Your task to perform on an android device: Go to privacy settings Image 0: 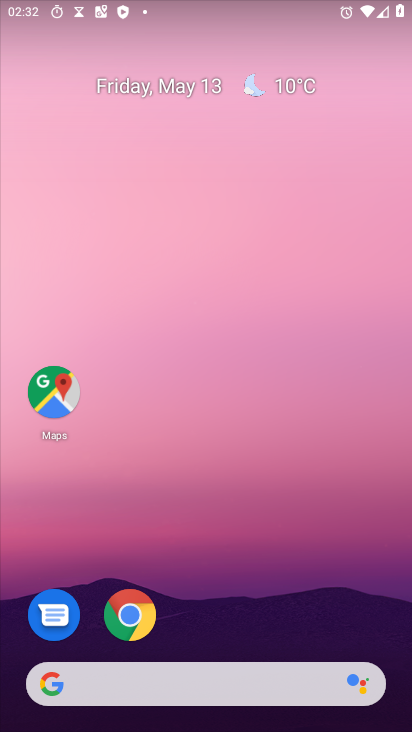
Step 0: drag from (194, 643) to (196, 25)
Your task to perform on an android device: Go to privacy settings Image 1: 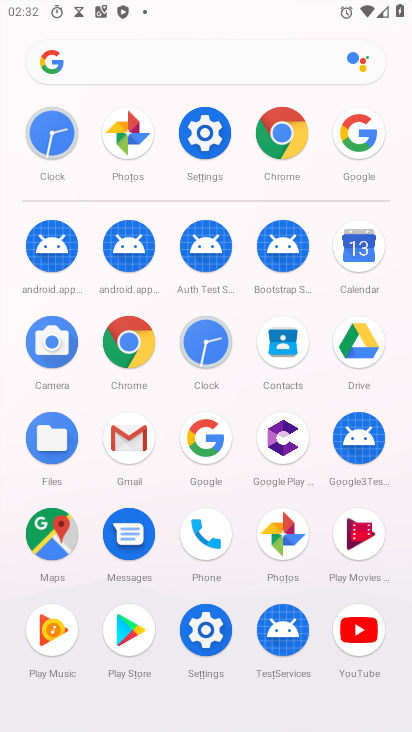
Step 1: click (208, 132)
Your task to perform on an android device: Go to privacy settings Image 2: 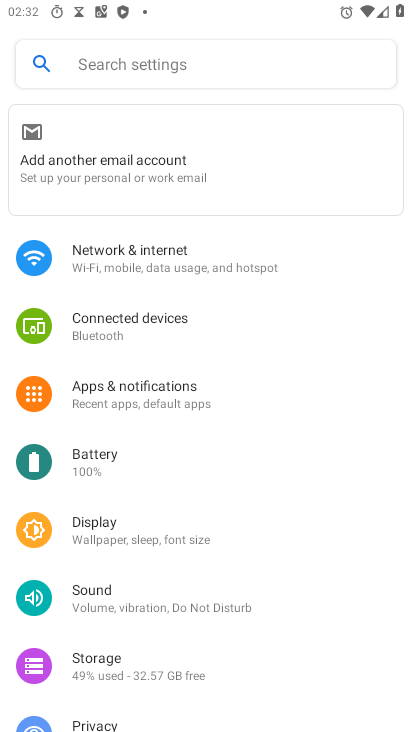
Step 2: click (86, 722)
Your task to perform on an android device: Go to privacy settings Image 3: 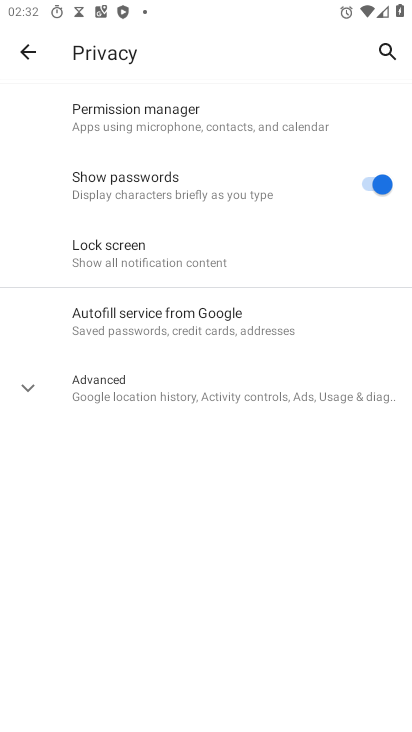
Step 3: click (156, 401)
Your task to perform on an android device: Go to privacy settings Image 4: 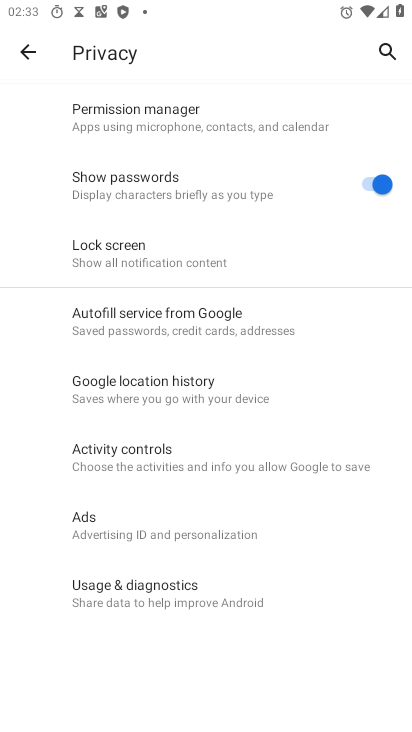
Step 4: task complete